Your task to perform on an android device: Open calendar and show me the third week of next month Image 0: 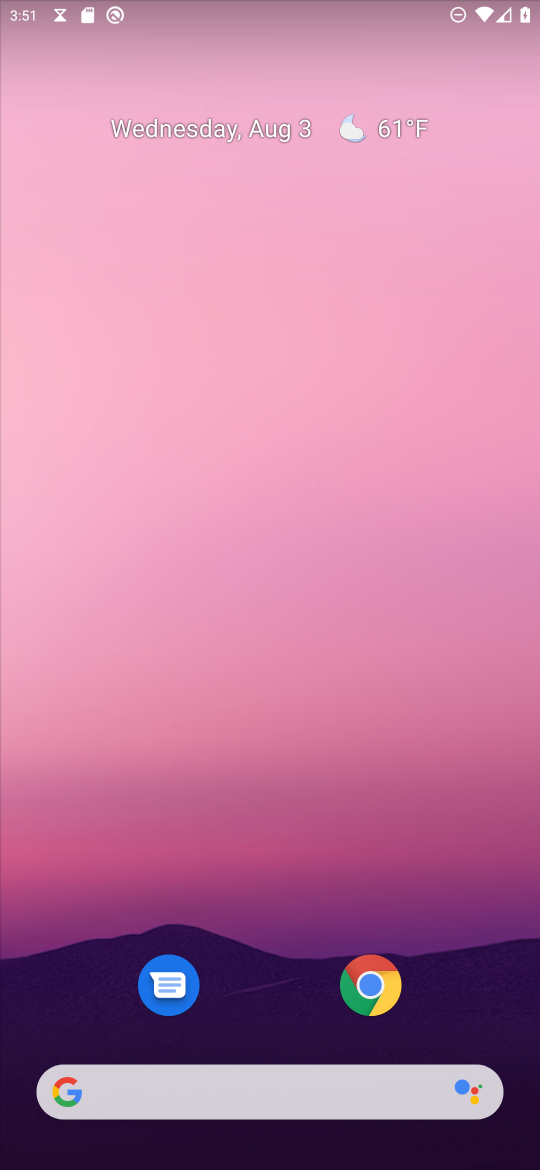
Step 0: drag from (268, 961) to (250, 371)
Your task to perform on an android device: Open calendar and show me the third week of next month Image 1: 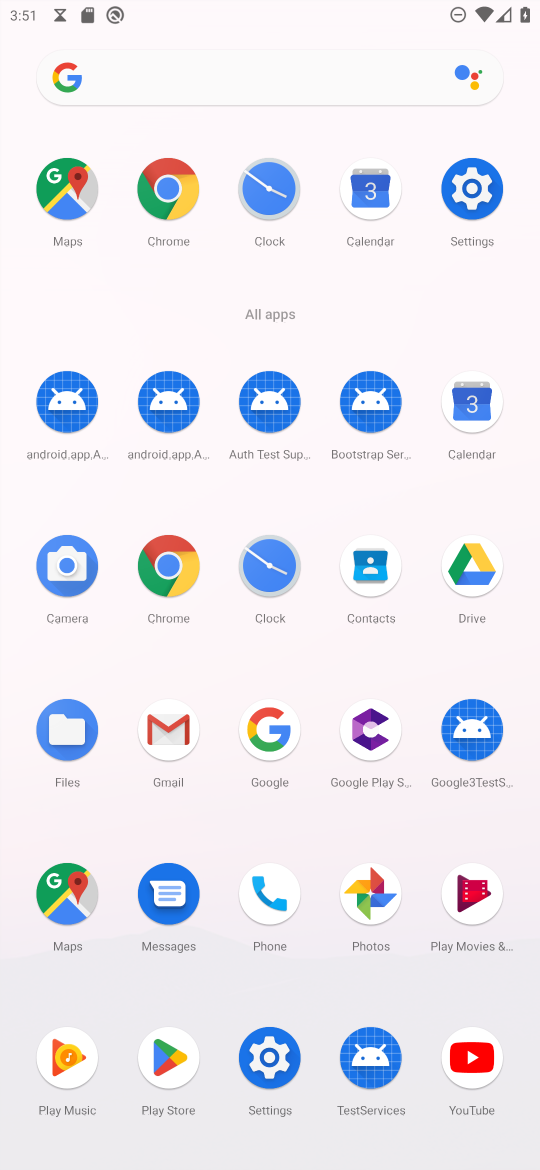
Step 1: click (478, 408)
Your task to perform on an android device: Open calendar and show me the third week of next month Image 2: 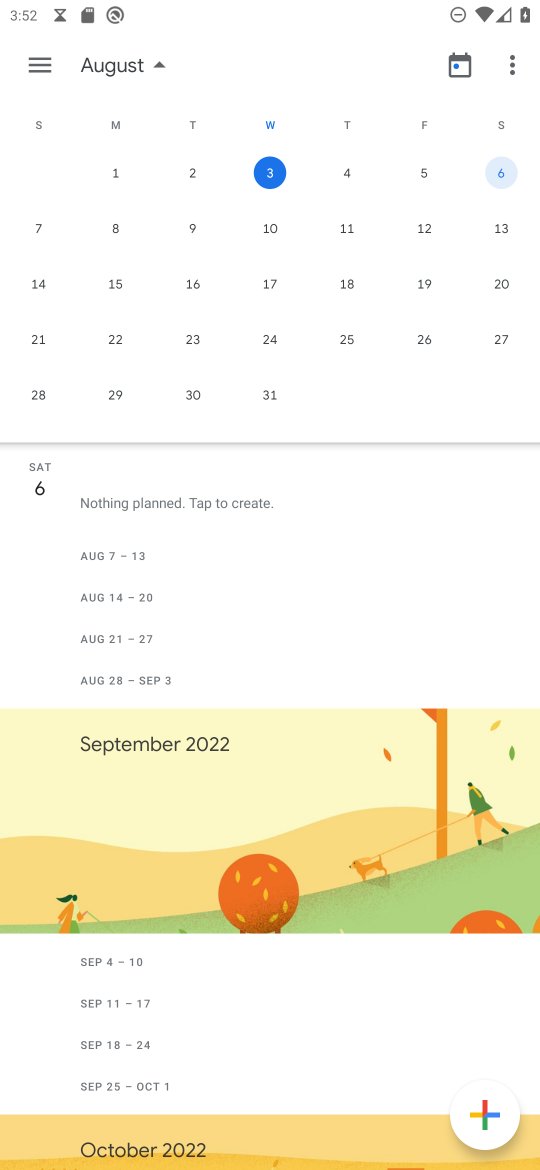
Step 2: drag from (517, 332) to (91, 240)
Your task to perform on an android device: Open calendar and show me the third week of next month Image 3: 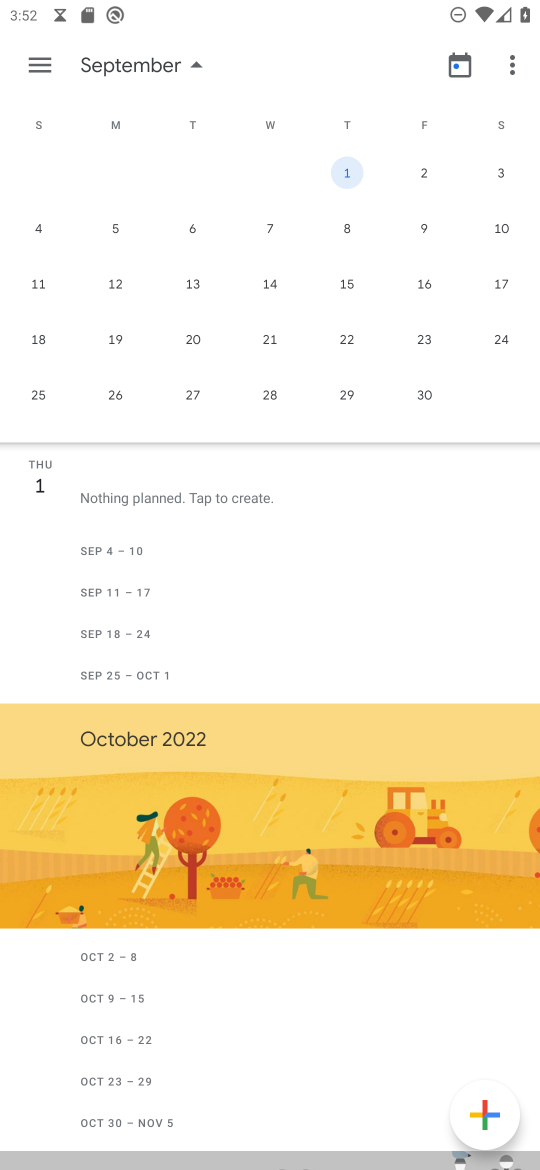
Step 3: click (36, 292)
Your task to perform on an android device: Open calendar and show me the third week of next month Image 4: 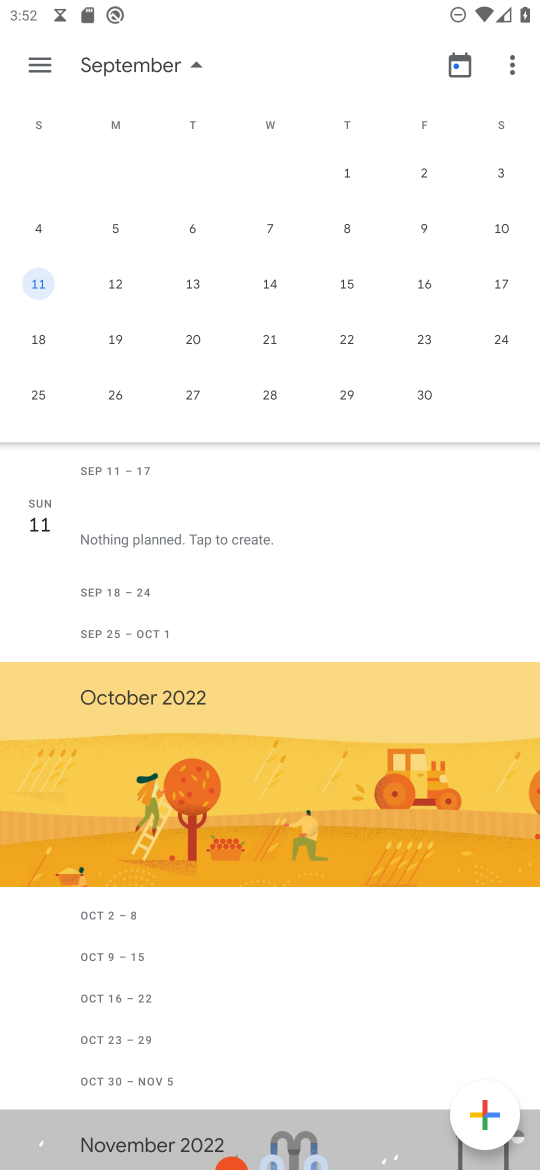
Step 4: task complete